Your task to perform on an android device: Go to internet settings Image 0: 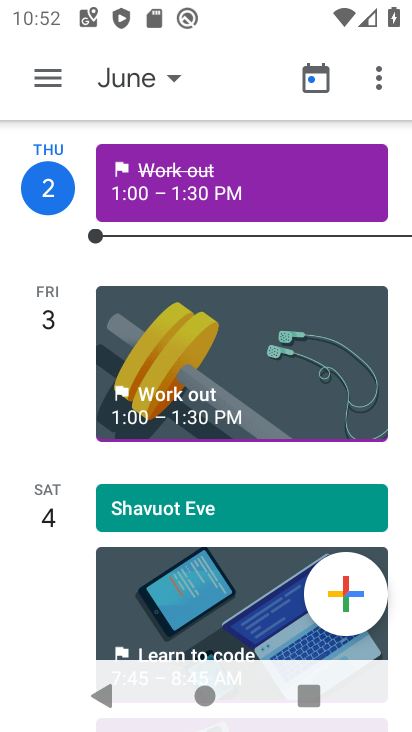
Step 0: press home button
Your task to perform on an android device: Go to internet settings Image 1: 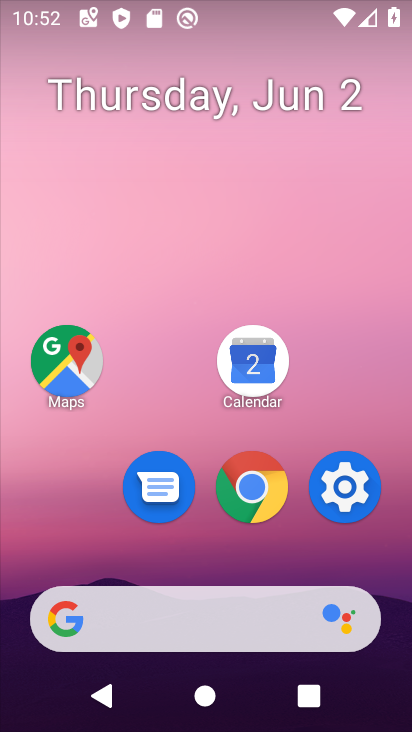
Step 1: drag from (267, 652) to (227, 77)
Your task to perform on an android device: Go to internet settings Image 2: 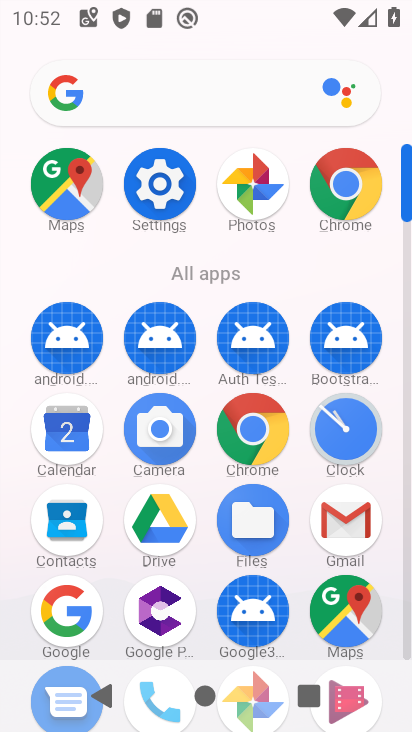
Step 2: click (140, 201)
Your task to perform on an android device: Go to internet settings Image 3: 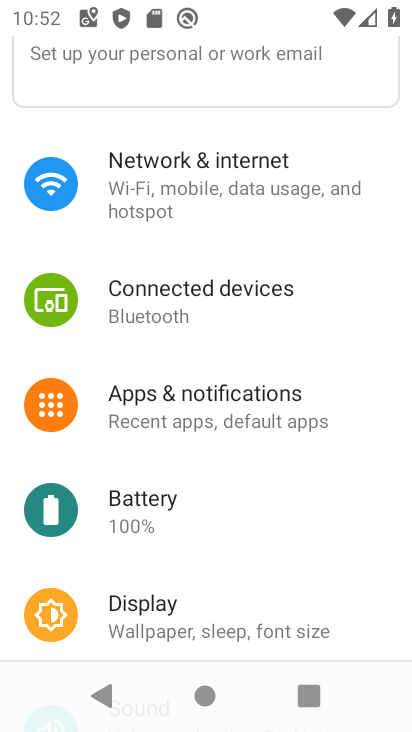
Step 3: click (225, 210)
Your task to perform on an android device: Go to internet settings Image 4: 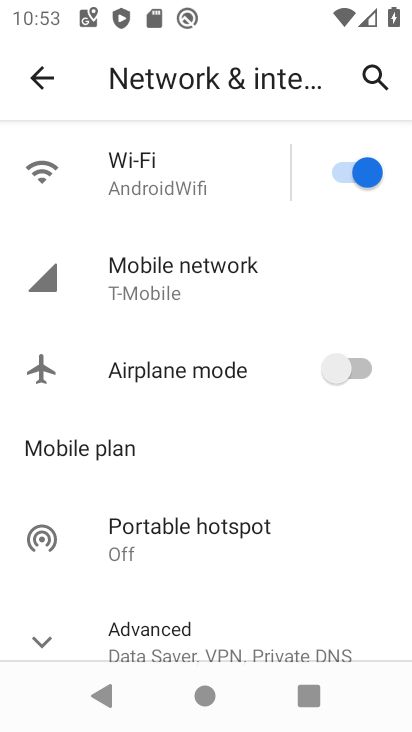
Step 4: task complete